Your task to perform on an android device: Is it going to rain today? Image 0: 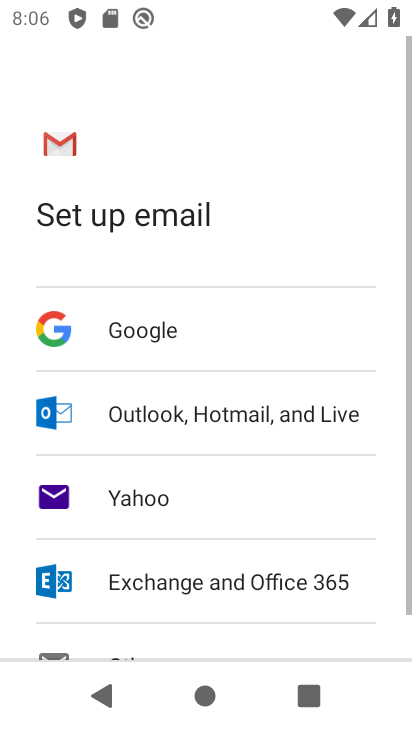
Step 0: press home button
Your task to perform on an android device: Is it going to rain today? Image 1: 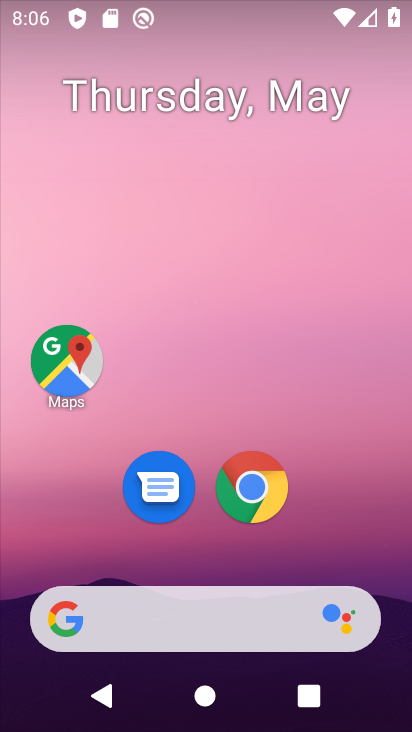
Step 1: click (277, 614)
Your task to perform on an android device: Is it going to rain today? Image 2: 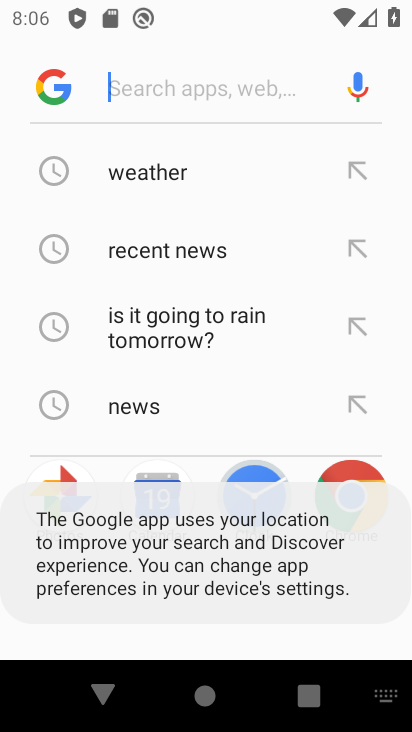
Step 2: click (173, 170)
Your task to perform on an android device: Is it going to rain today? Image 3: 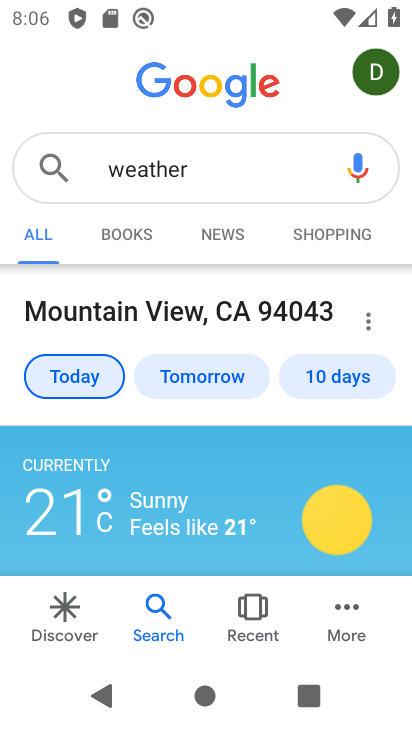
Step 3: click (91, 395)
Your task to perform on an android device: Is it going to rain today? Image 4: 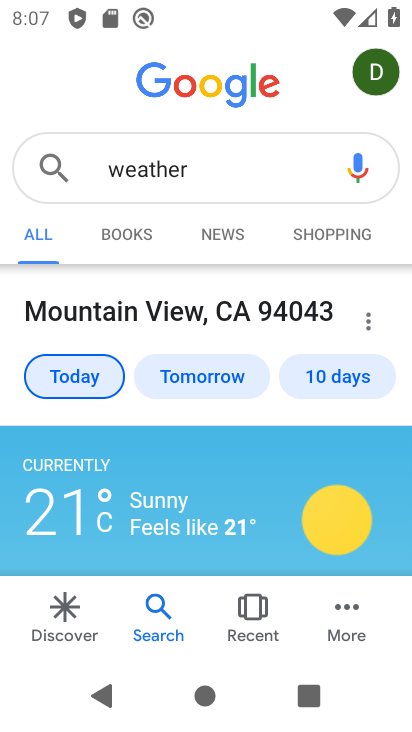
Step 4: task complete